Your task to perform on an android device: Open calendar and show me the third week of next month Image 0: 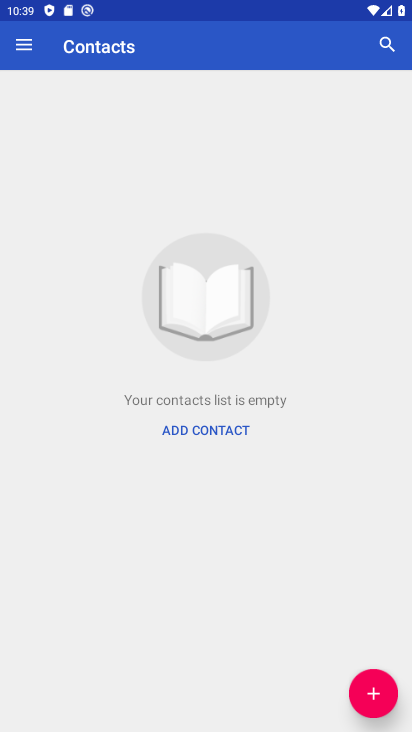
Step 0: press home button
Your task to perform on an android device: Open calendar and show me the third week of next month Image 1: 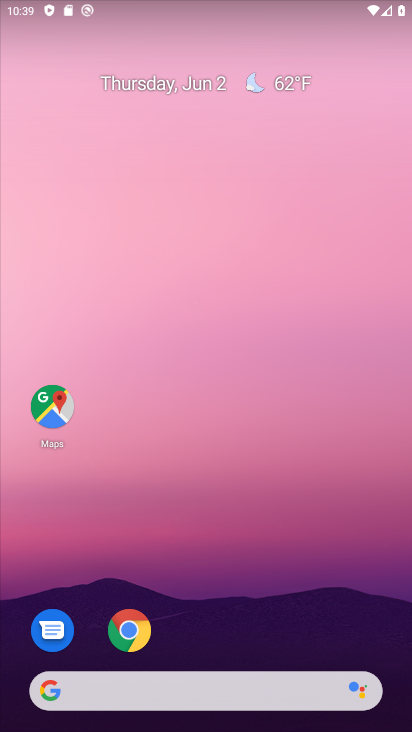
Step 1: drag from (149, 692) to (320, 105)
Your task to perform on an android device: Open calendar and show me the third week of next month Image 2: 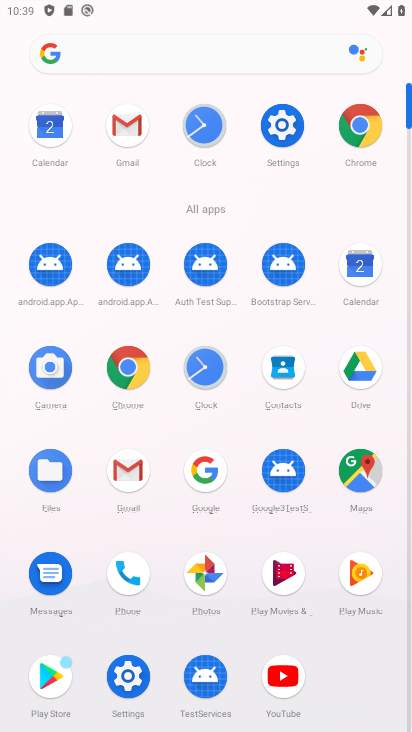
Step 2: click (355, 268)
Your task to perform on an android device: Open calendar and show me the third week of next month Image 3: 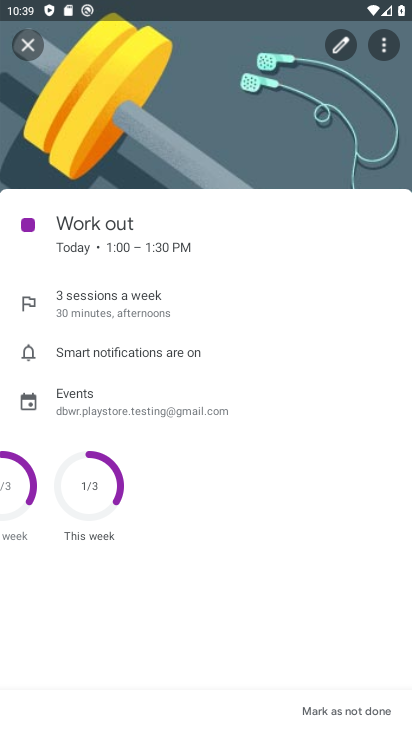
Step 3: click (29, 46)
Your task to perform on an android device: Open calendar and show me the third week of next month Image 4: 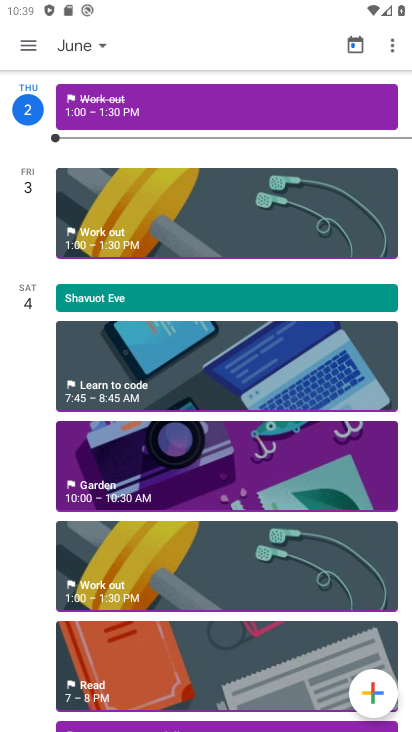
Step 4: click (72, 46)
Your task to perform on an android device: Open calendar and show me the third week of next month Image 5: 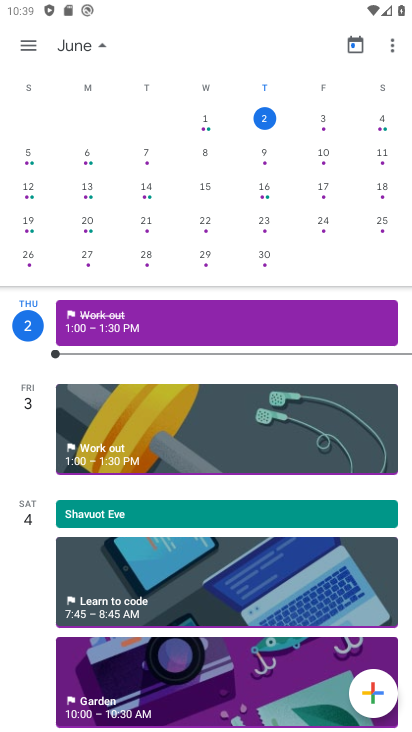
Step 5: drag from (332, 188) to (68, 58)
Your task to perform on an android device: Open calendar and show me the third week of next month Image 6: 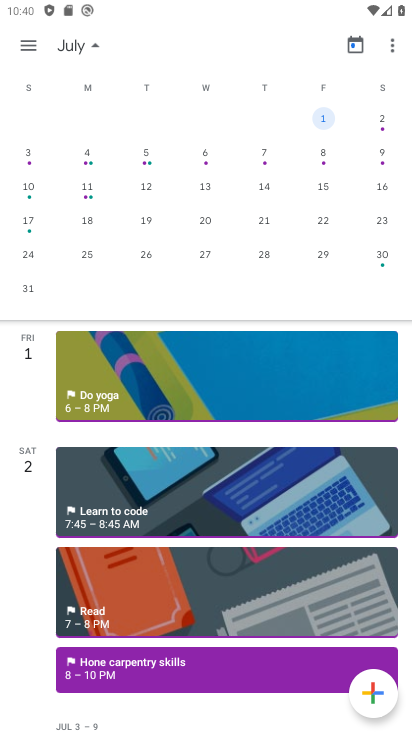
Step 6: click (23, 222)
Your task to perform on an android device: Open calendar and show me the third week of next month Image 7: 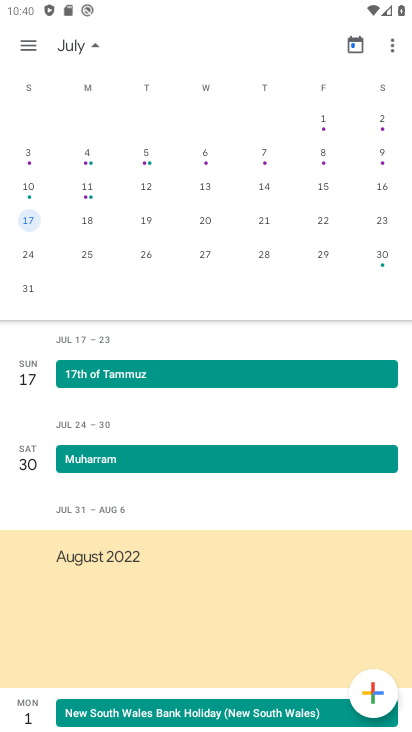
Step 7: click (33, 45)
Your task to perform on an android device: Open calendar and show me the third week of next month Image 8: 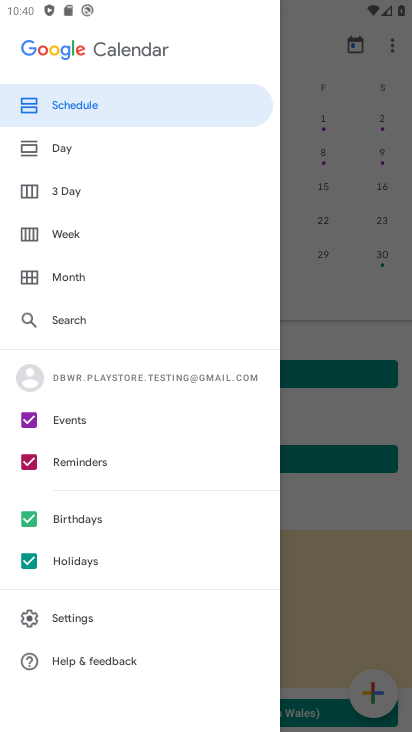
Step 8: click (72, 233)
Your task to perform on an android device: Open calendar and show me the third week of next month Image 9: 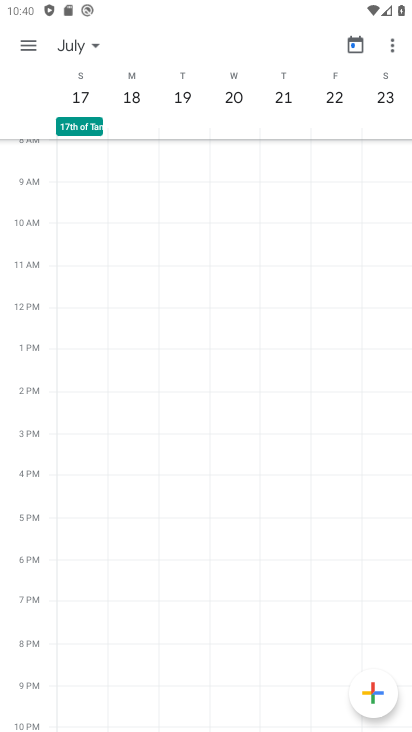
Step 9: task complete